Your task to perform on an android device: What is the recent news? Image 0: 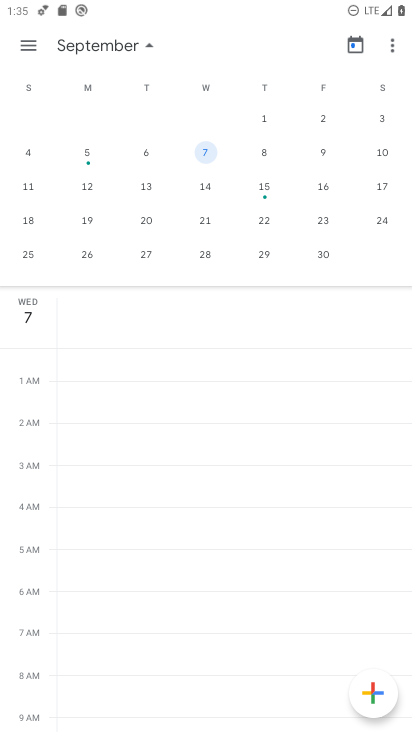
Step 0: press home button
Your task to perform on an android device: What is the recent news? Image 1: 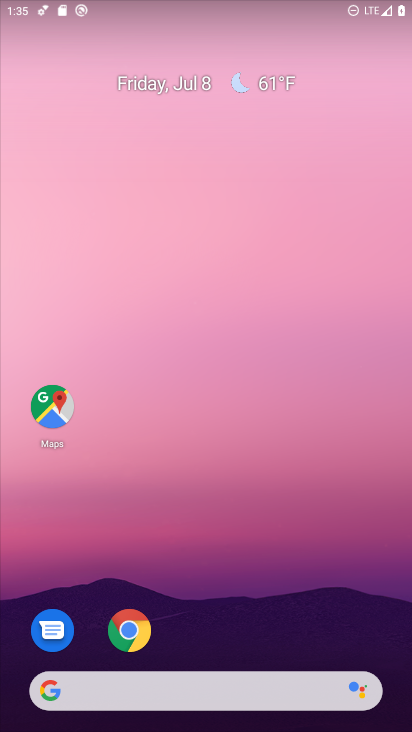
Step 1: drag from (383, 676) to (291, 79)
Your task to perform on an android device: What is the recent news? Image 2: 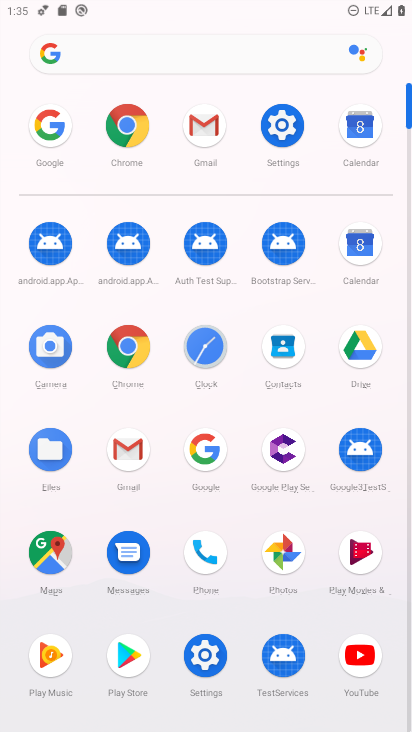
Step 2: click (209, 451)
Your task to perform on an android device: What is the recent news? Image 3: 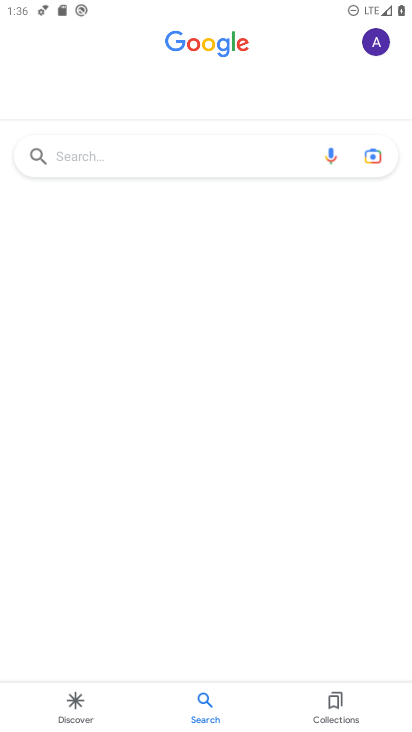
Step 3: click (160, 148)
Your task to perform on an android device: What is the recent news? Image 4: 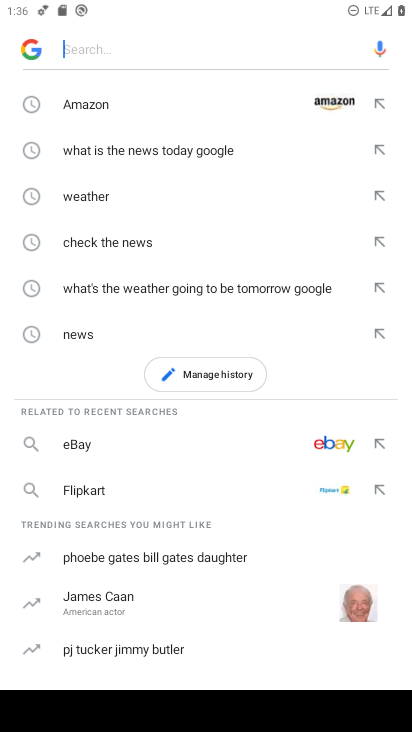
Step 4: type "What is the recent news?"
Your task to perform on an android device: What is the recent news? Image 5: 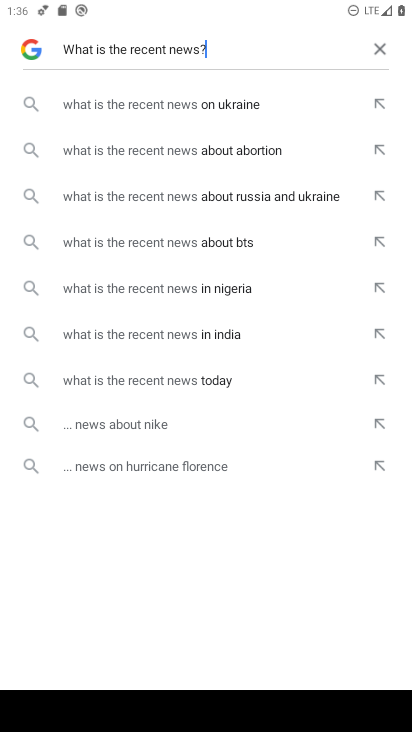
Step 5: click (137, 388)
Your task to perform on an android device: What is the recent news? Image 6: 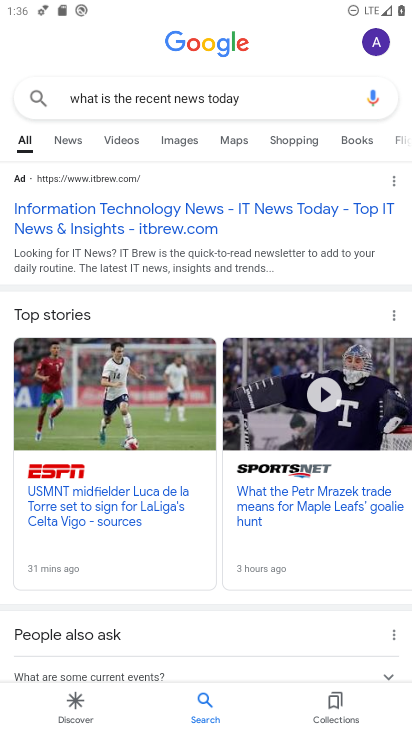
Step 6: task complete